Your task to perform on an android device: open app "LinkedIn" Image 0: 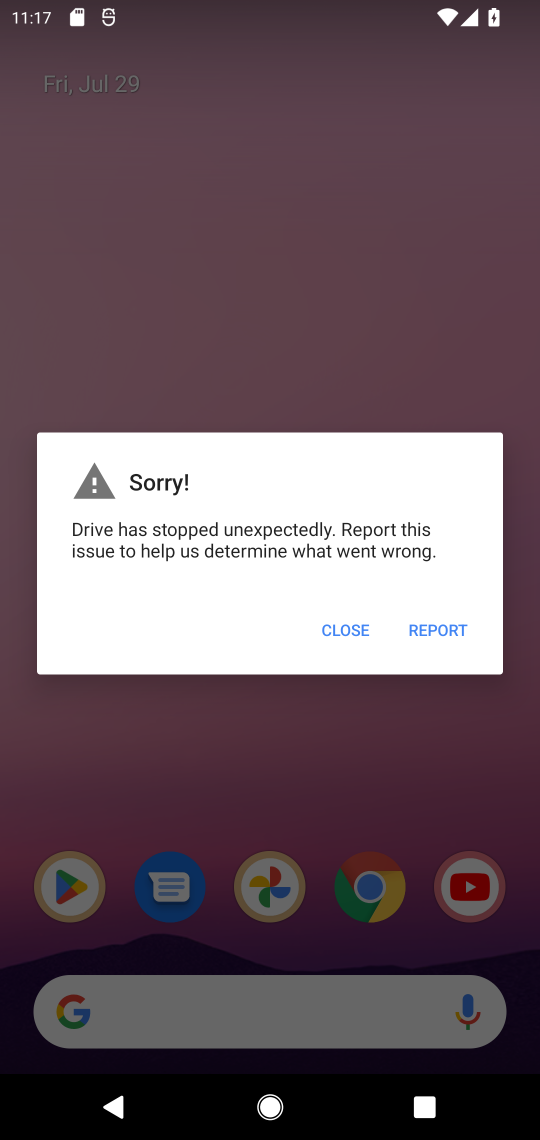
Step 0: press home button
Your task to perform on an android device: open app "LinkedIn" Image 1: 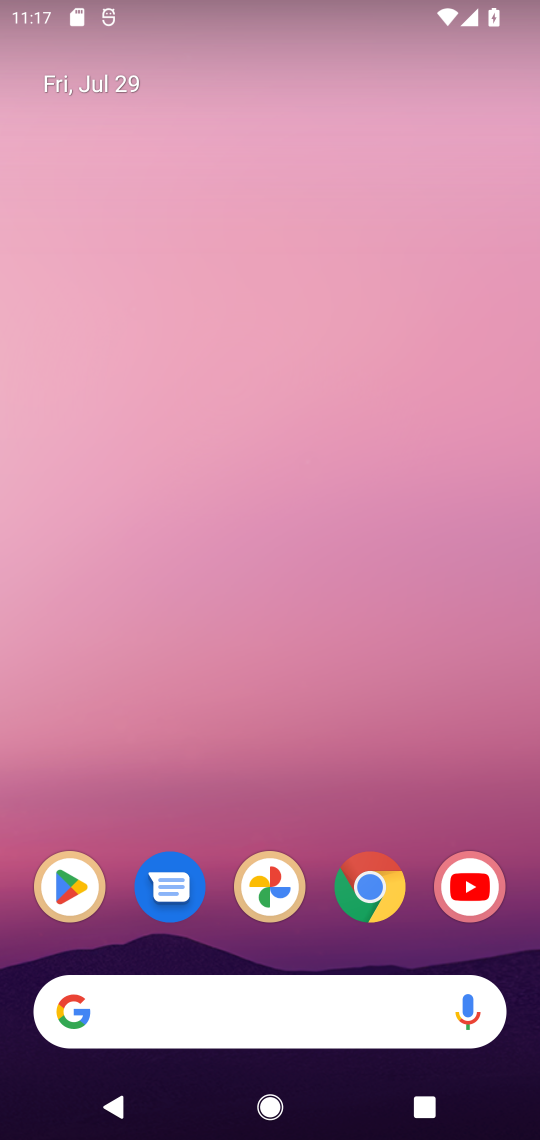
Step 1: drag from (208, 1009) to (266, 315)
Your task to perform on an android device: open app "LinkedIn" Image 2: 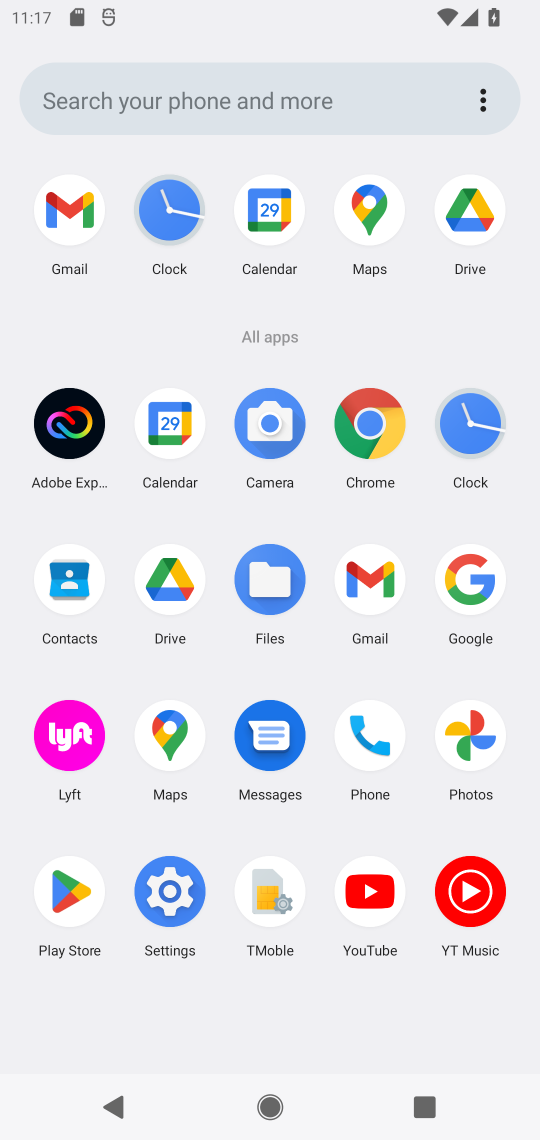
Step 2: click (76, 899)
Your task to perform on an android device: open app "LinkedIn" Image 3: 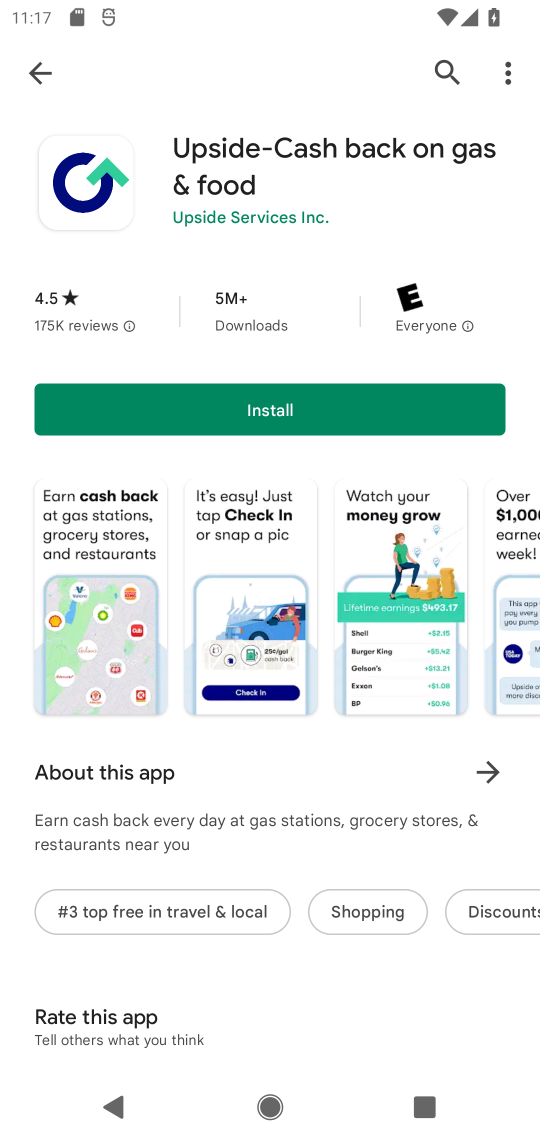
Step 3: click (445, 66)
Your task to perform on an android device: open app "LinkedIn" Image 4: 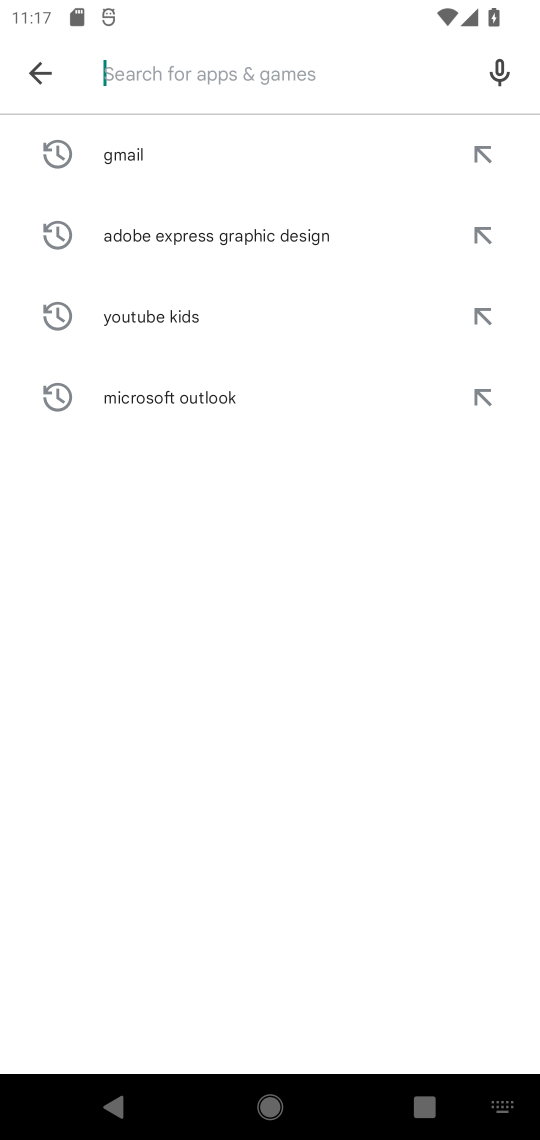
Step 4: click (367, 63)
Your task to perform on an android device: open app "LinkedIn" Image 5: 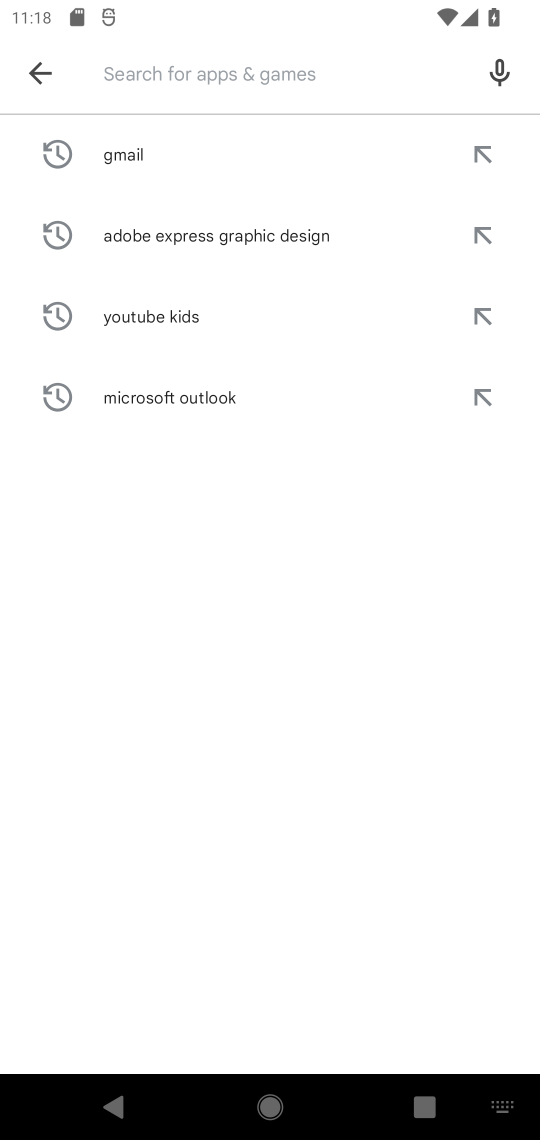
Step 5: type "LinkedIn"
Your task to perform on an android device: open app "LinkedIn" Image 6: 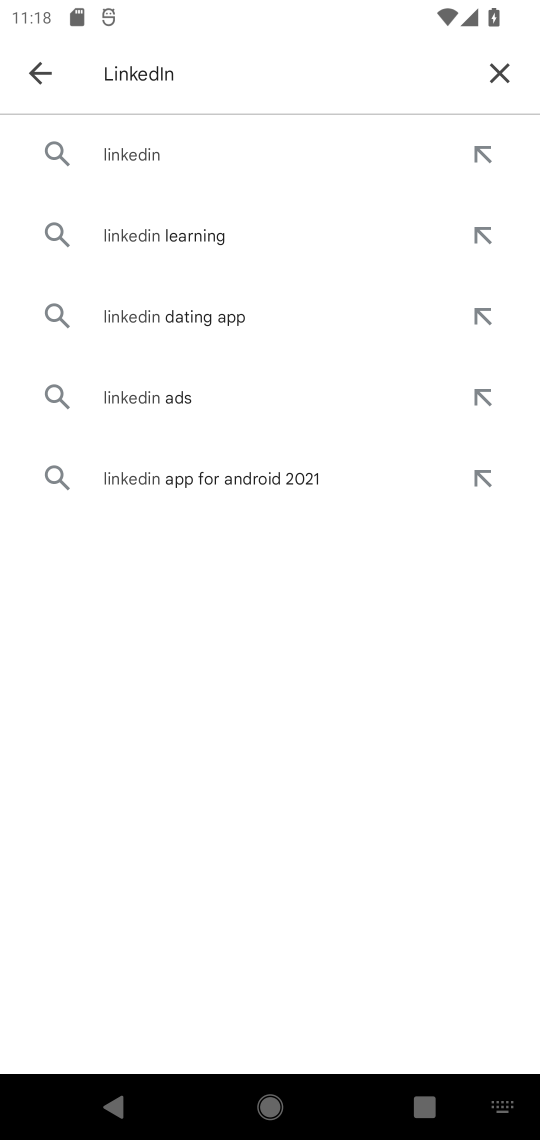
Step 6: click (157, 162)
Your task to perform on an android device: open app "LinkedIn" Image 7: 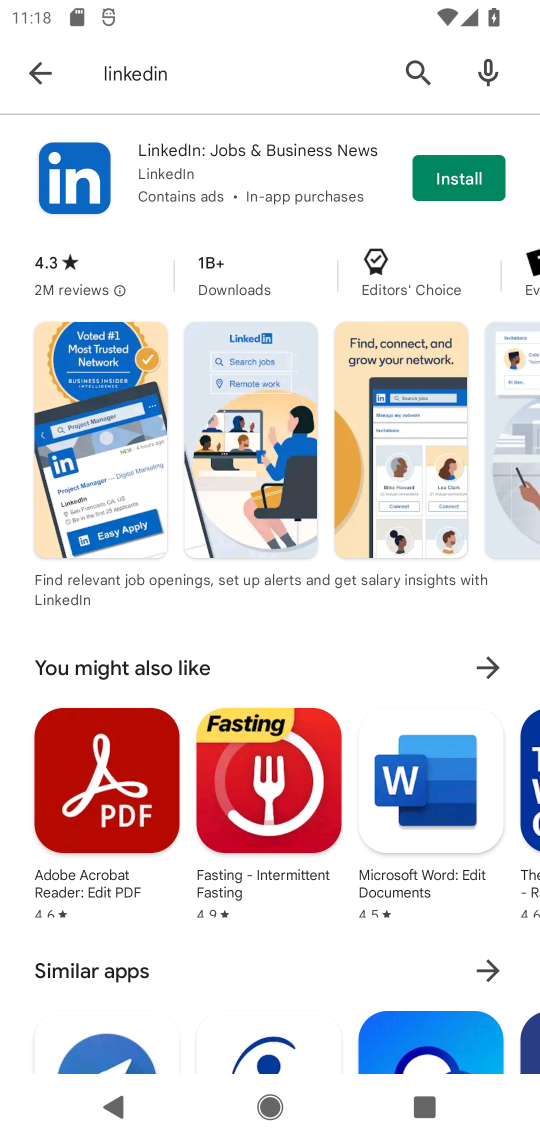
Step 7: task complete